Your task to perform on an android device: Clear all items from cart on bestbuy. Search for razer nari on bestbuy, select the first entry, add it to the cart, then select checkout. Image 0: 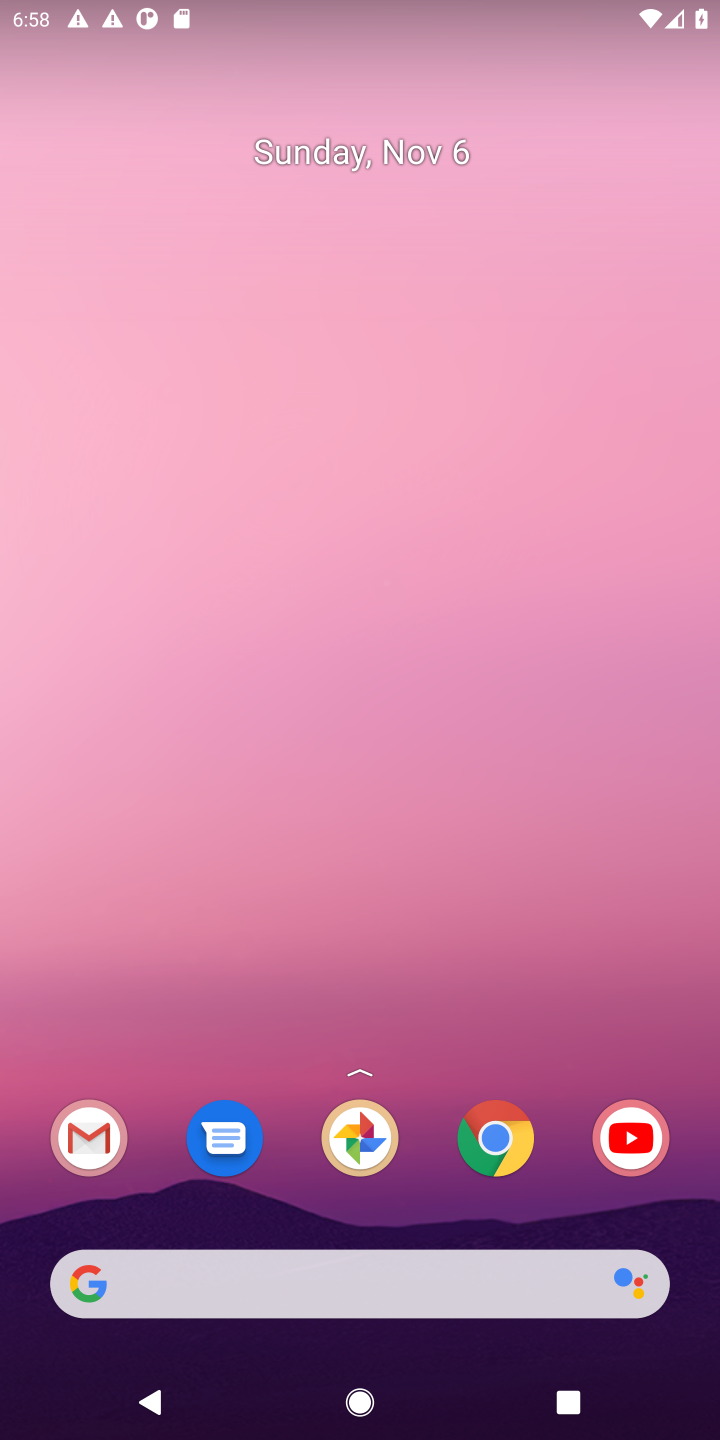
Step 0: drag from (302, 1021) to (356, 251)
Your task to perform on an android device: Clear all items from cart on bestbuy. Search for razer nari on bestbuy, select the first entry, add it to the cart, then select checkout. Image 1: 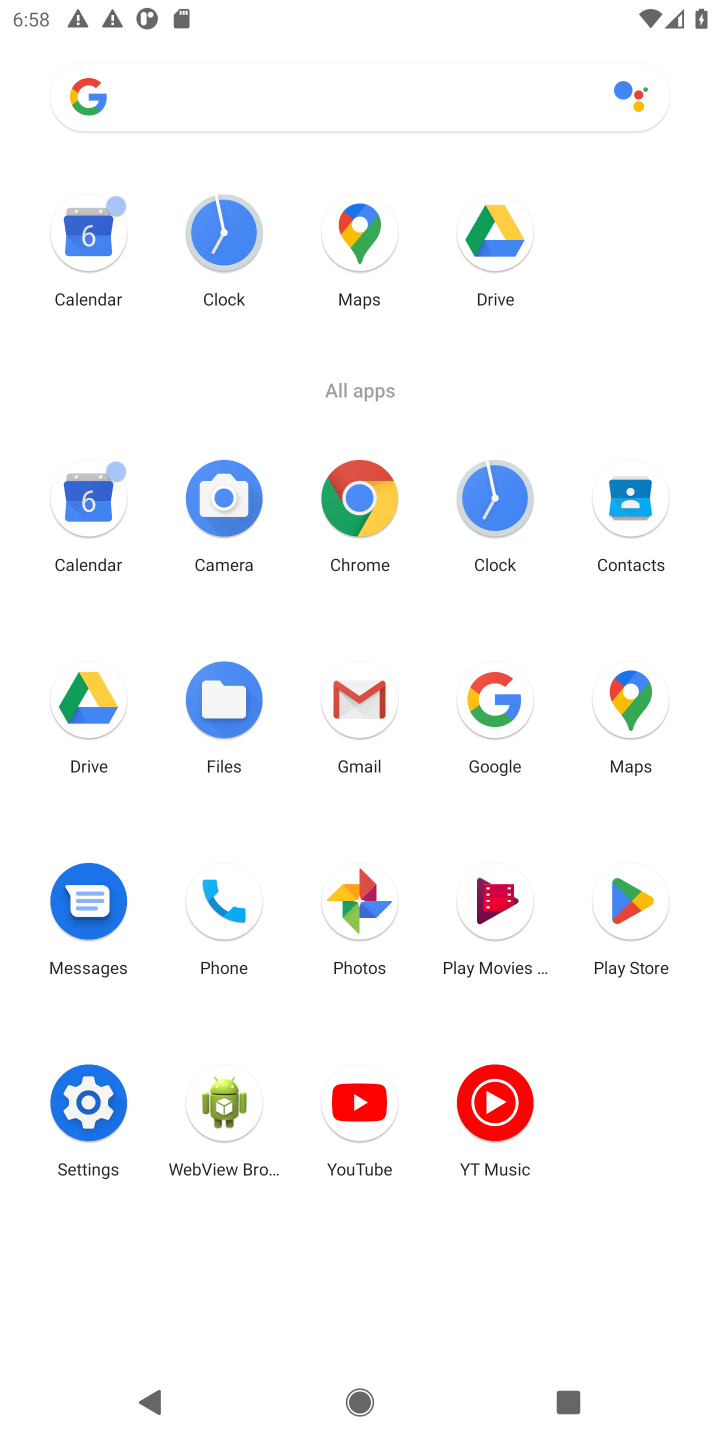
Step 1: click (494, 692)
Your task to perform on an android device: Clear all items from cart on bestbuy. Search for razer nari on bestbuy, select the first entry, add it to the cart, then select checkout. Image 2: 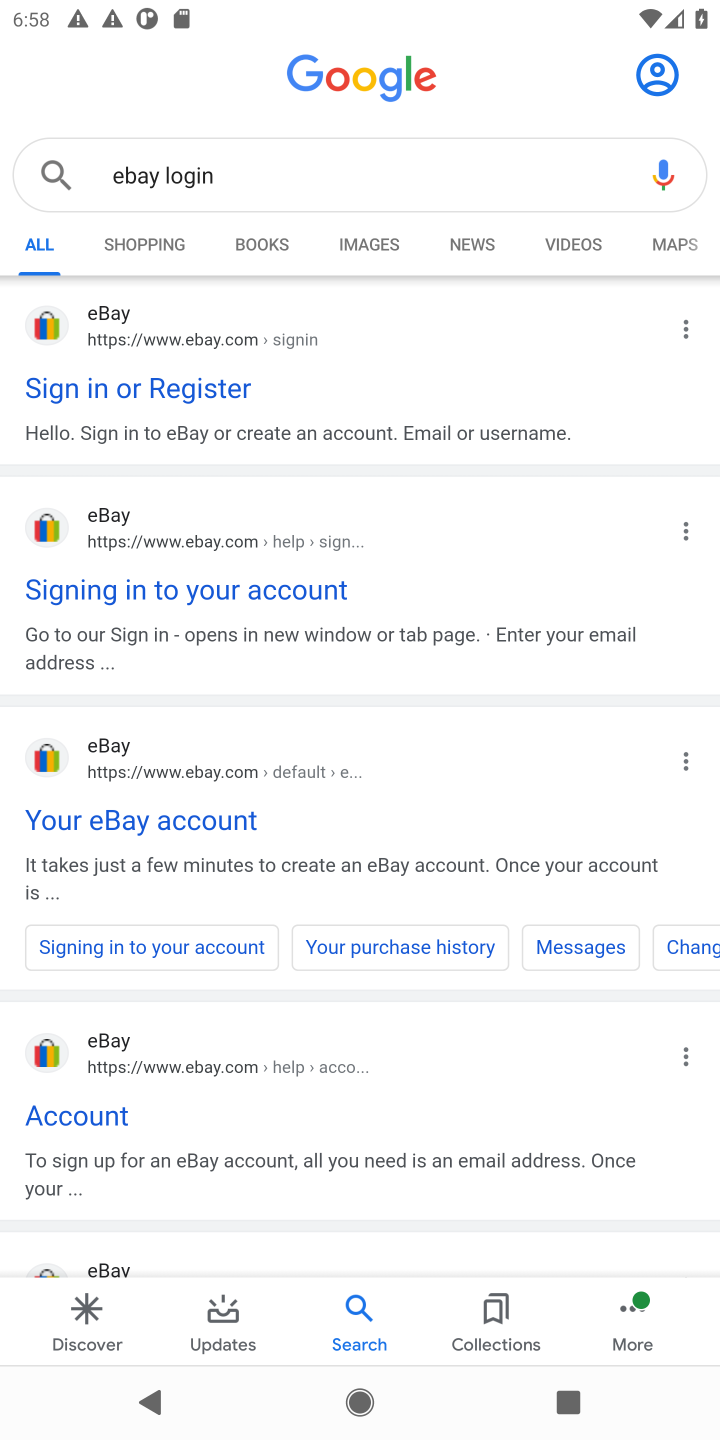
Step 2: click (323, 161)
Your task to perform on an android device: Clear all items from cart on bestbuy. Search for razer nari on bestbuy, select the first entry, add it to the cart, then select checkout. Image 3: 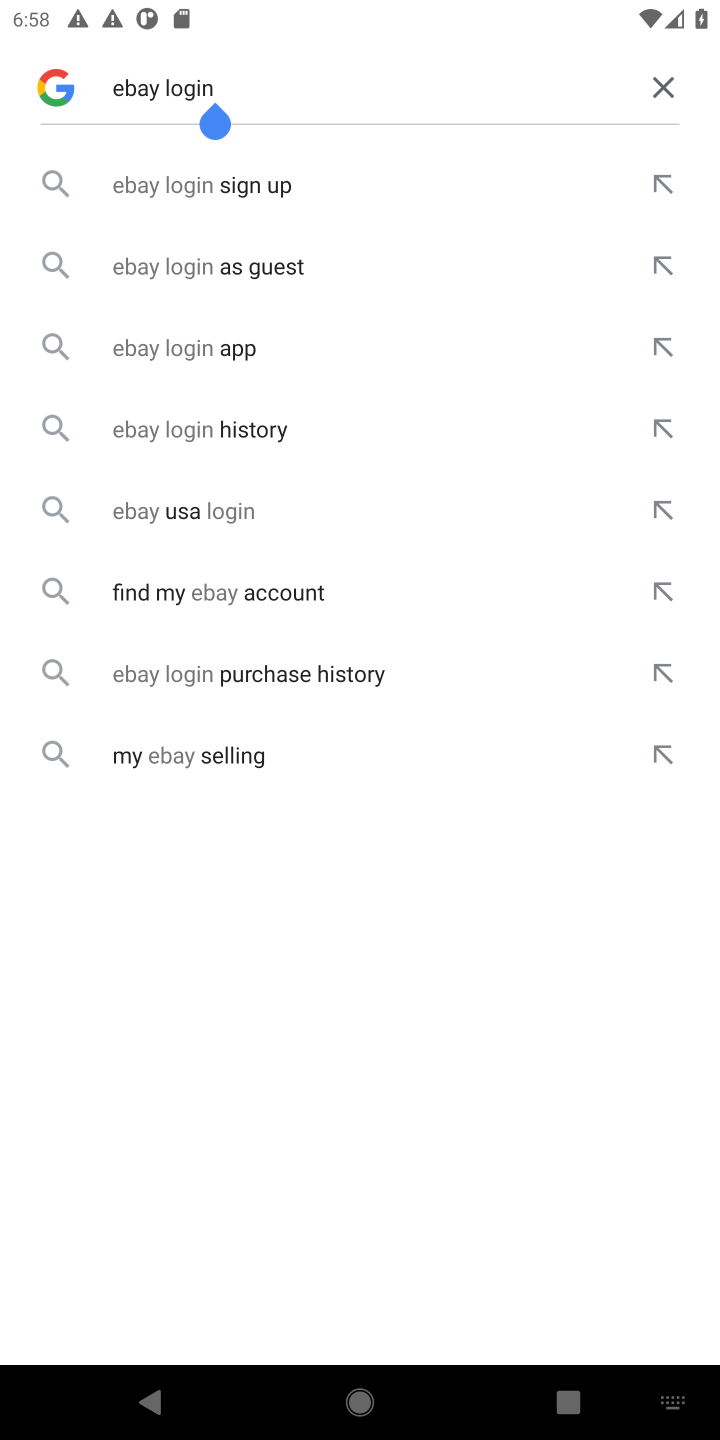
Step 3: click (664, 85)
Your task to perform on an android device: Clear all items from cart on bestbuy. Search for razer nari on bestbuy, select the first entry, add it to the cart, then select checkout. Image 4: 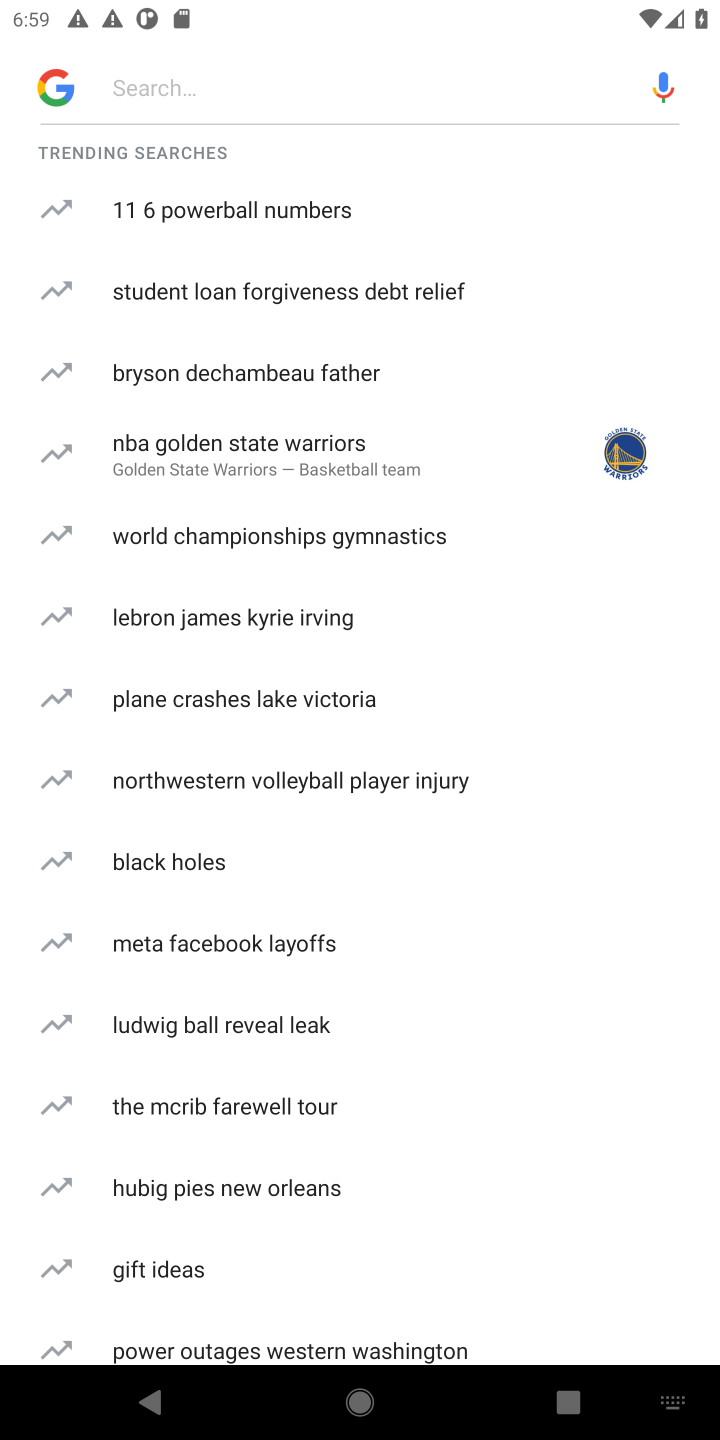
Step 4: click (290, 79)
Your task to perform on an android device: Clear all items from cart on bestbuy. Search for razer nari on bestbuy, select the first entry, add it to the cart, then select checkout. Image 5: 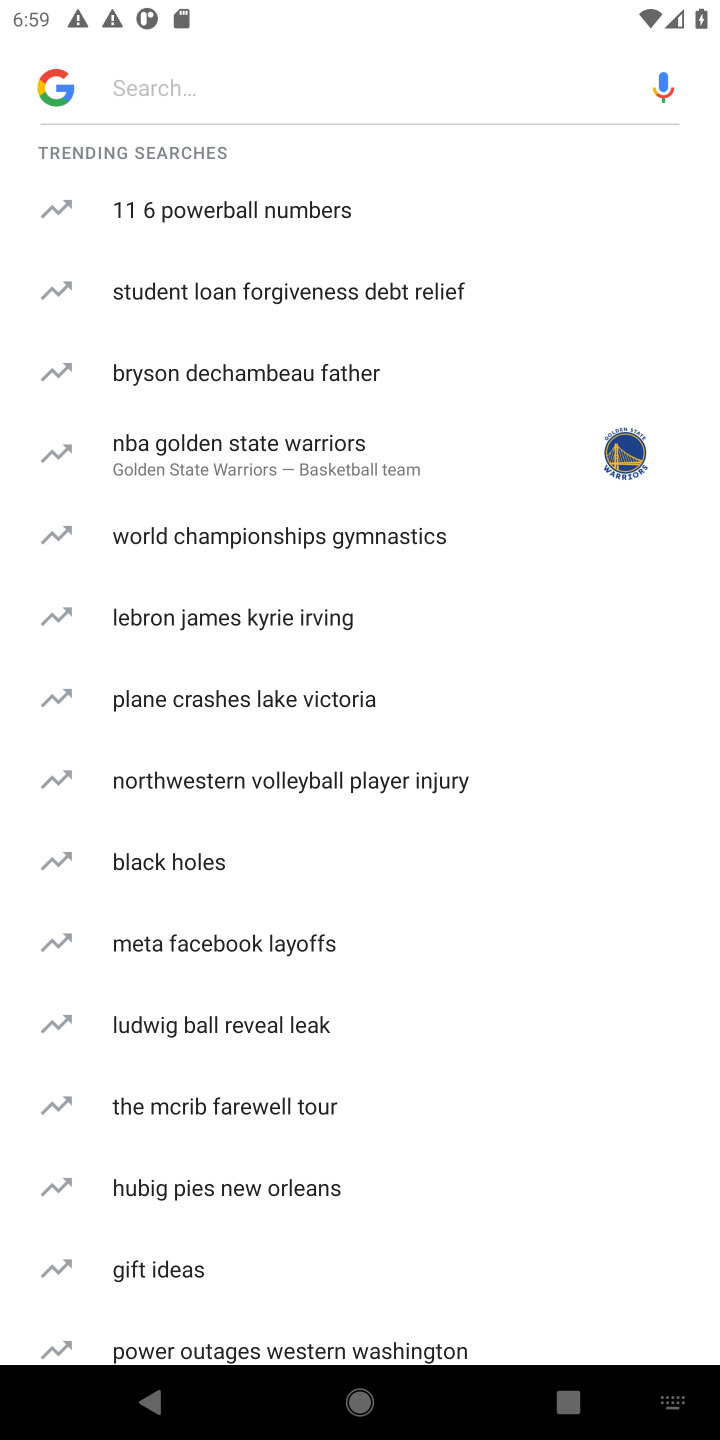
Step 5: type "bestbuy "
Your task to perform on an android device: Clear all items from cart on bestbuy. Search for razer nari on bestbuy, select the first entry, add it to the cart, then select checkout. Image 6: 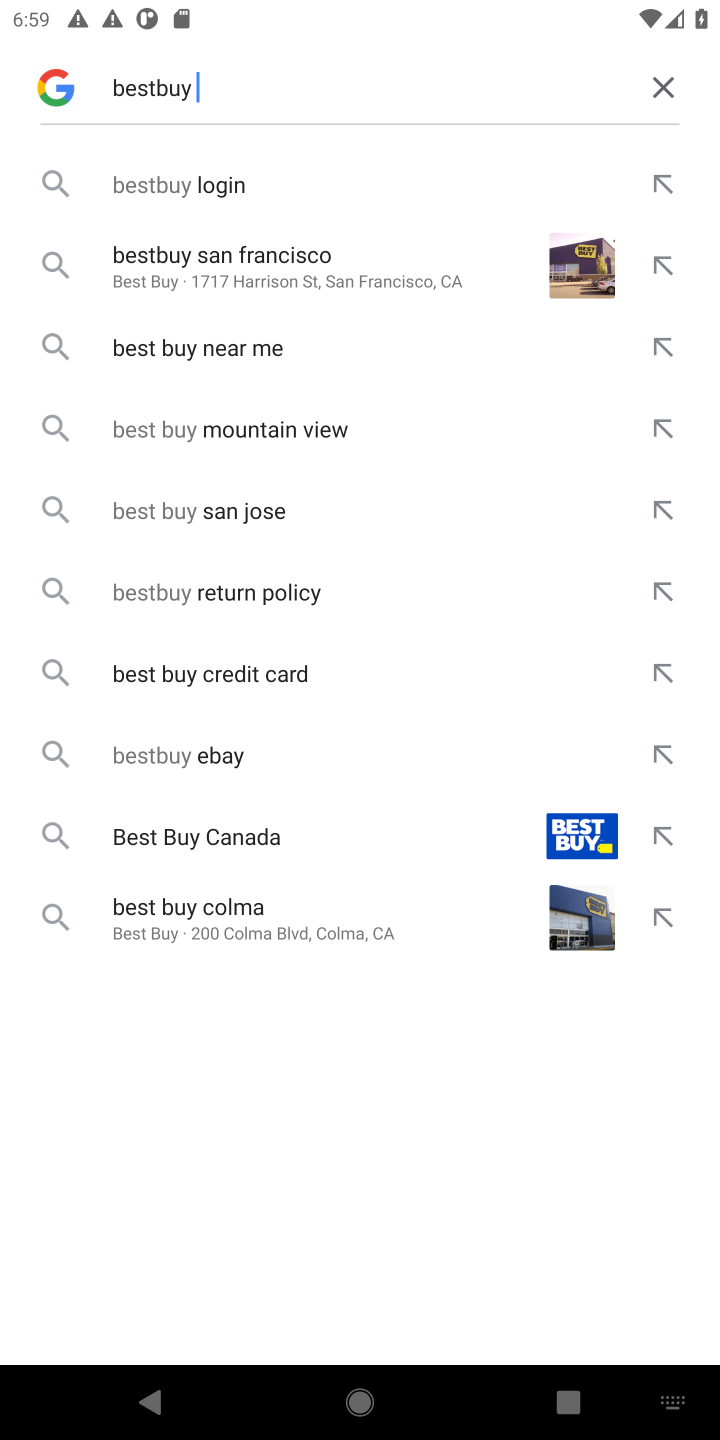
Step 6: click (181, 178)
Your task to perform on an android device: Clear all items from cart on bestbuy. Search for razer nari on bestbuy, select the first entry, add it to the cart, then select checkout. Image 7: 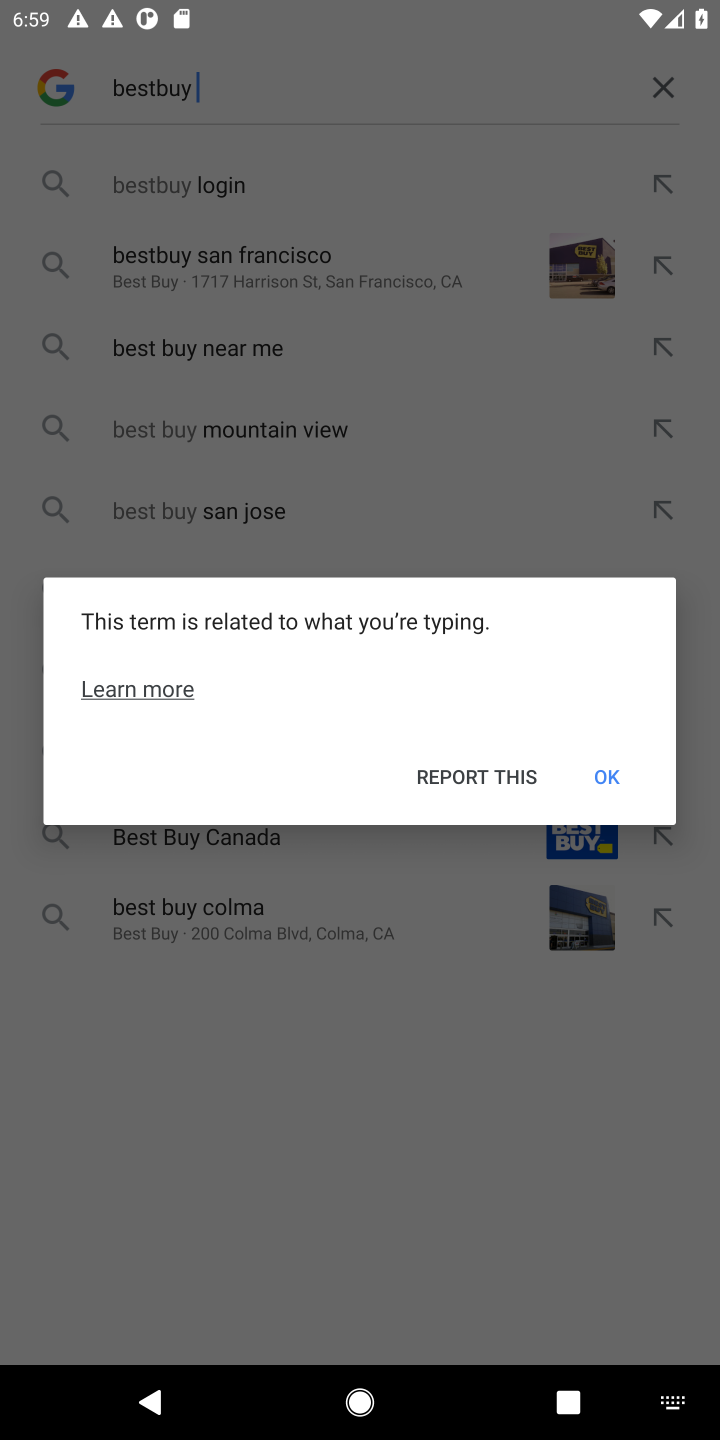
Step 7: click (582, 759)
Your task to perform on an android device: Clear all items from cart on bestbuy. Search for razer nari on bestbuy, select the first entry, add it to the cart, then select checkout. Image 8: 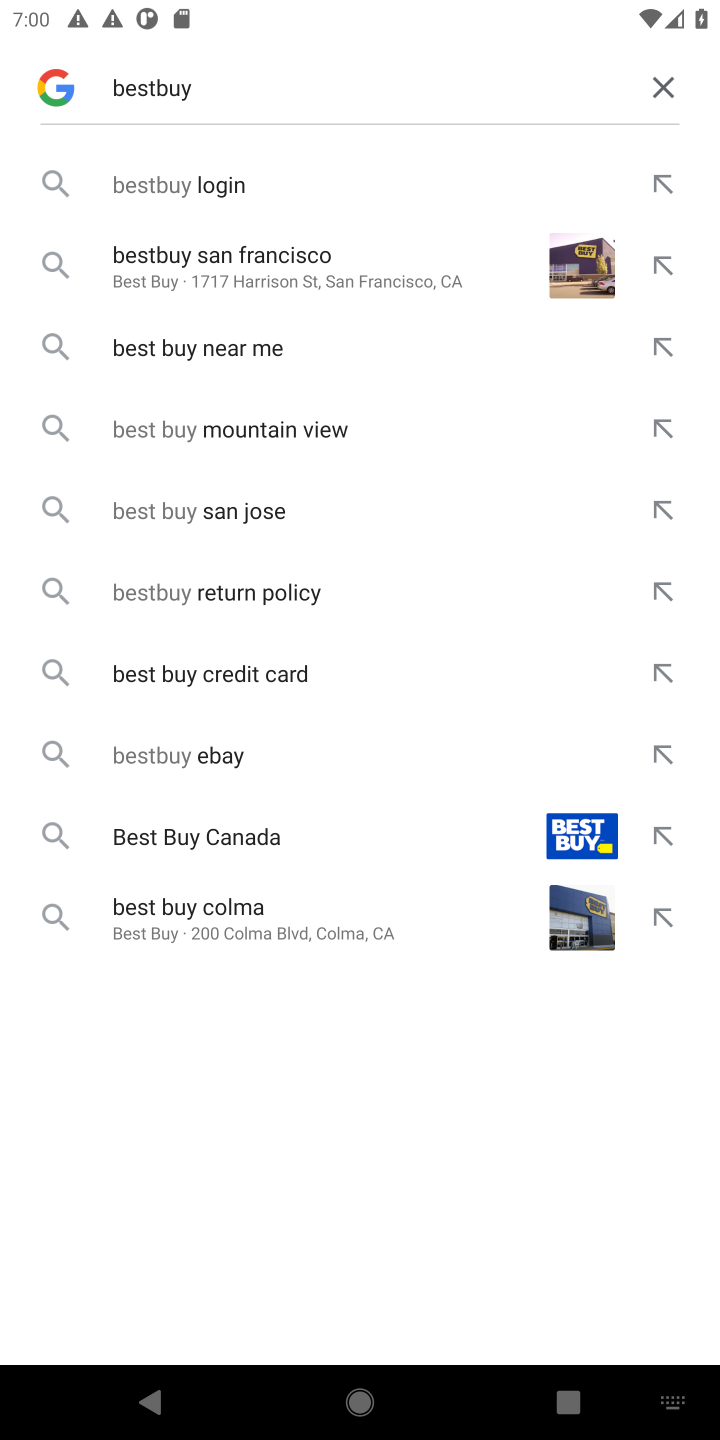
Step 8: click (254, 270)
Your task to perform on an android device: Clear all items from cart on bestbuy. Search for razer nari on bestbuy, select the first entry, add it to the cart, then select checkout. Image 9: 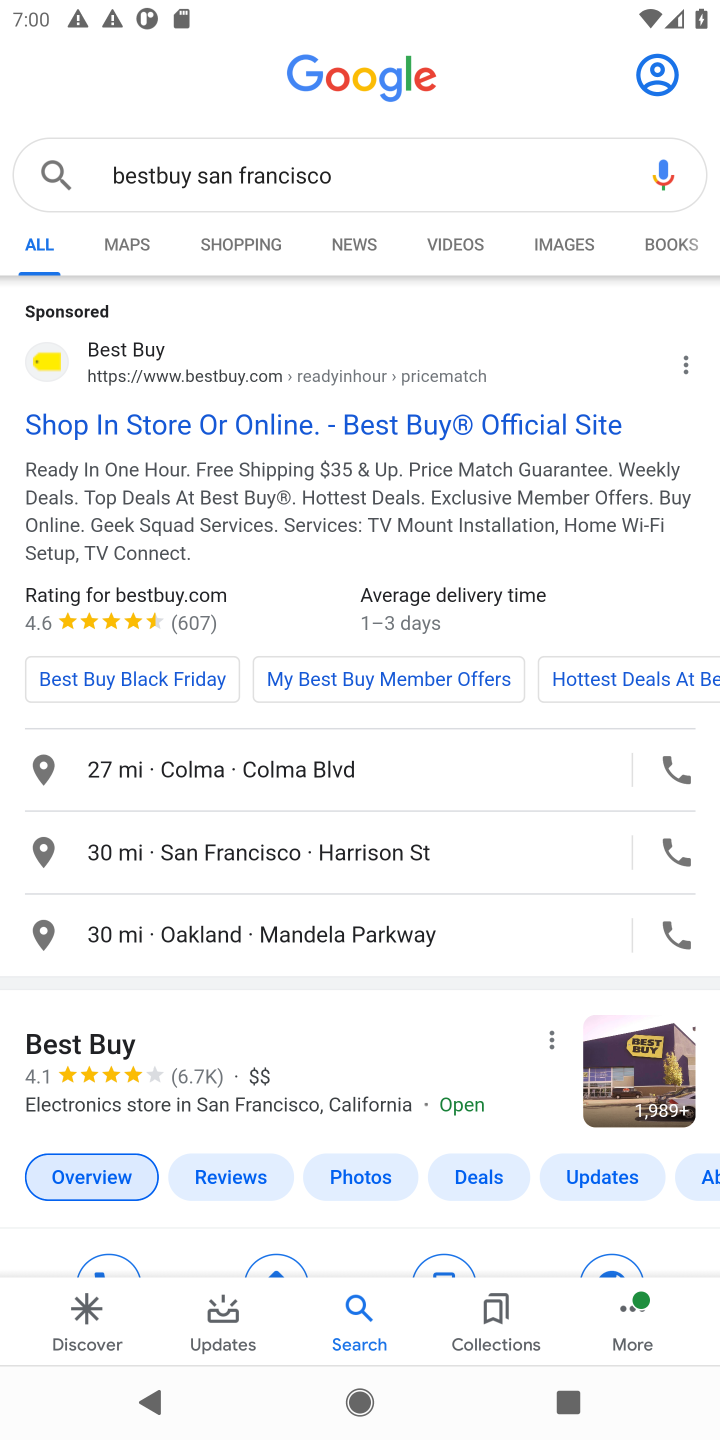
Step 9: click (28, 339)
Your task to perform on an android device: Clear all items from cart on bestbuy. Search for razer nari on bestbuy, select the first entry, add it to the cart, then select checkout. Image 10: 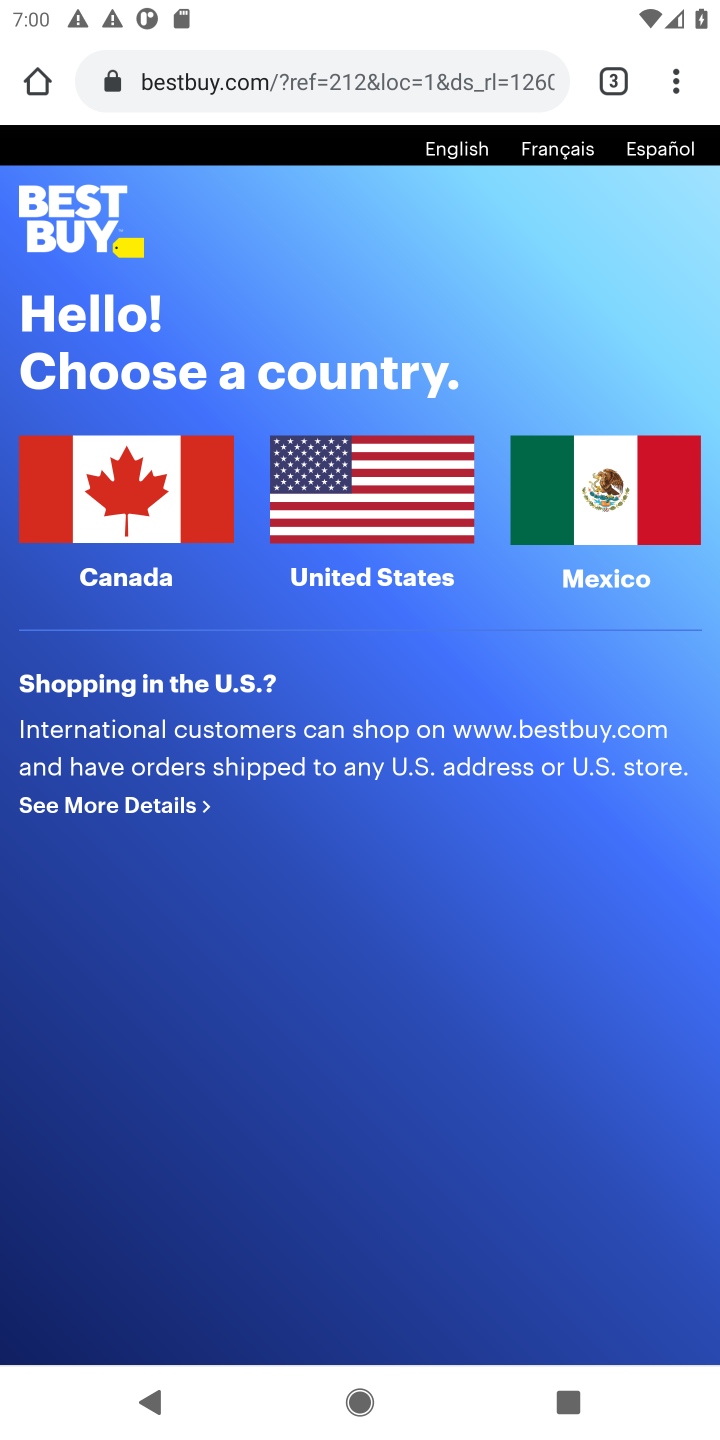
Step 10: click (341, 502)
Your task to perform on an android device: Clear all items from cart on bestbuy. Search for razer nari on bestbuy, select the first entry, add it to the cart, then select checkout. Image 11: 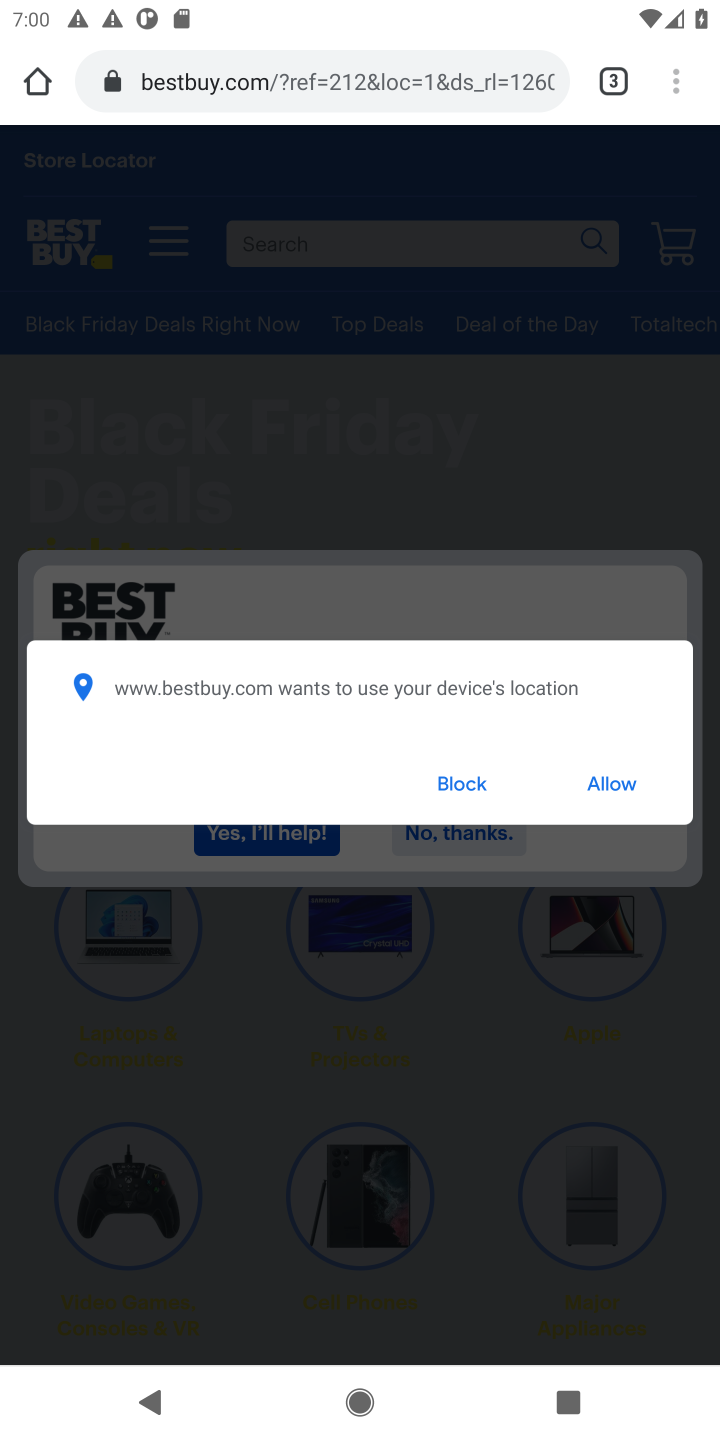
Step 11: click (604, 782)
Your task to perform on an android device: Clear all items from cart on bestbuy. Search for razer nari on bestbuy, select the first entry, add it to the cart, then select checkout. Image 12: 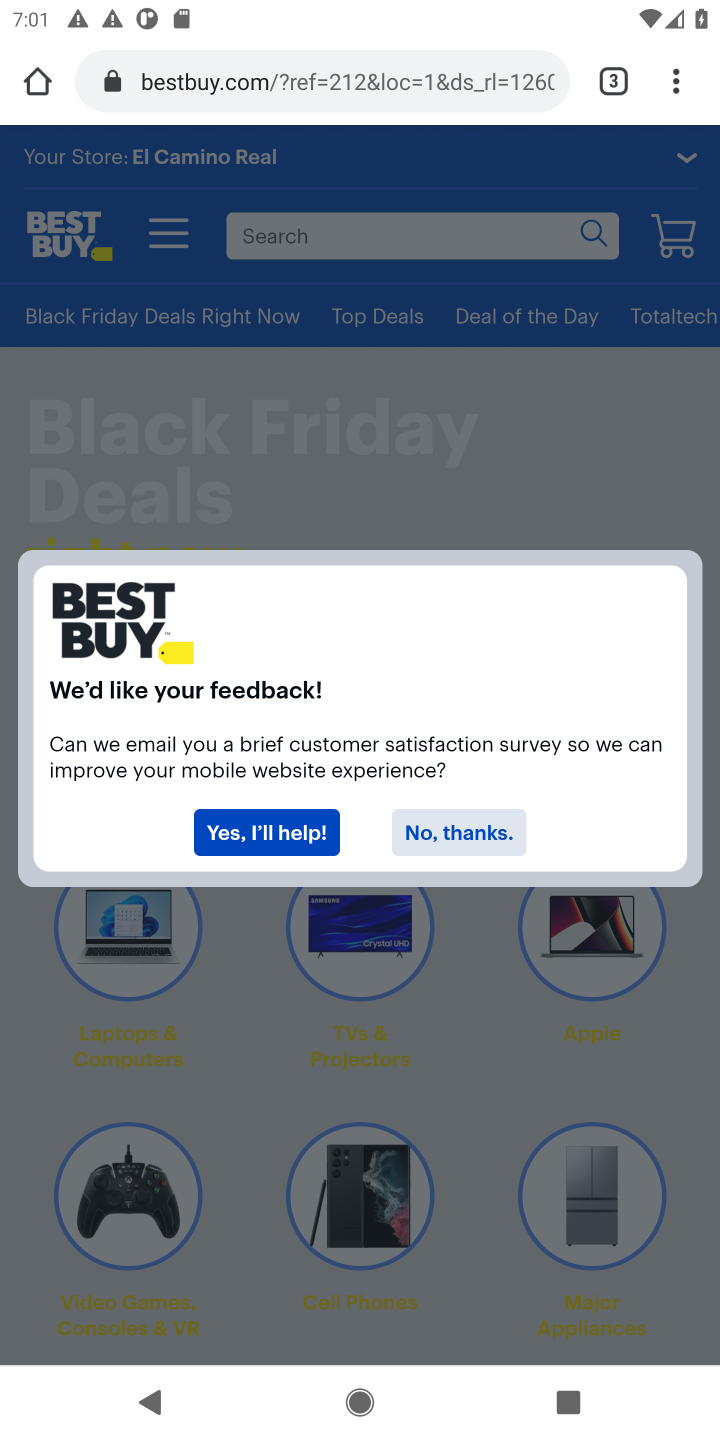
Step 12: click (489, 817)
Your task to perform on an android device: Clear all items from cart on bestbuy. Search for razer nari on bestbuy, select the first entry, add it to the cart, then select checkout. Image 13: 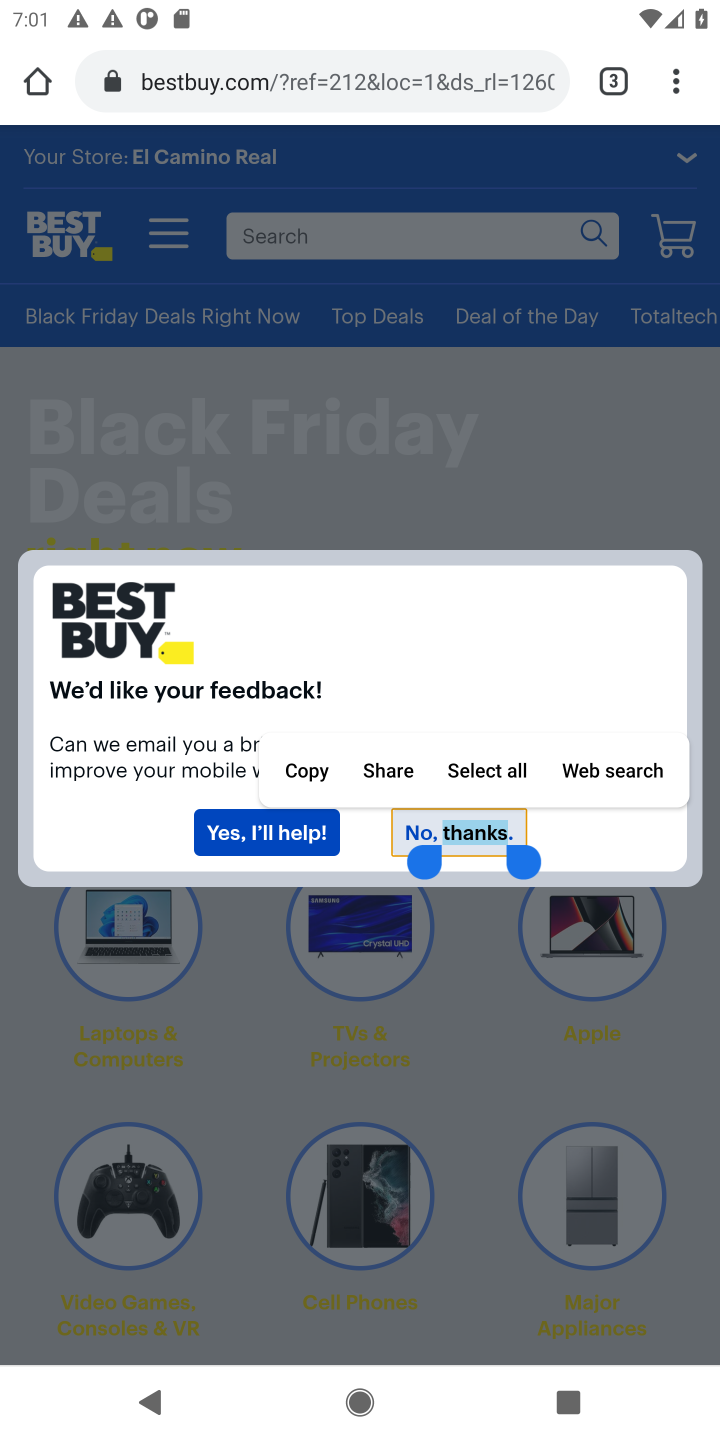
Step 13: click (463, 842)
Your task to perform on an android device: Clear all items from cart on bestbuy. Search for razer nari on bestbuy, select the first entry, add it to the cart, then select checkout. Image 14: 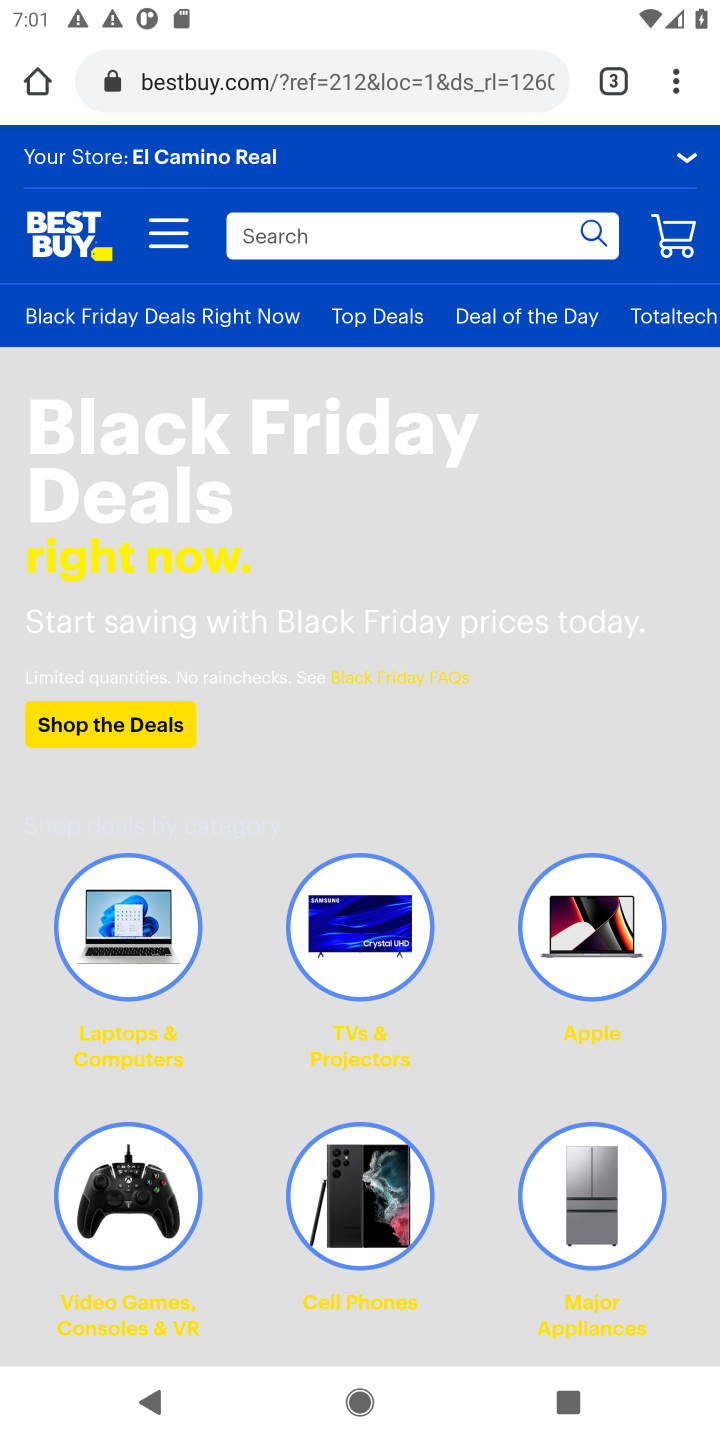
Step 14: click (475, 226)
Your task to perform on an android device: Clear all items from cart on bestbuy. Search for razer nari on bestbuy, select the first entry, add it to the cart, then select checkout. Image 15: 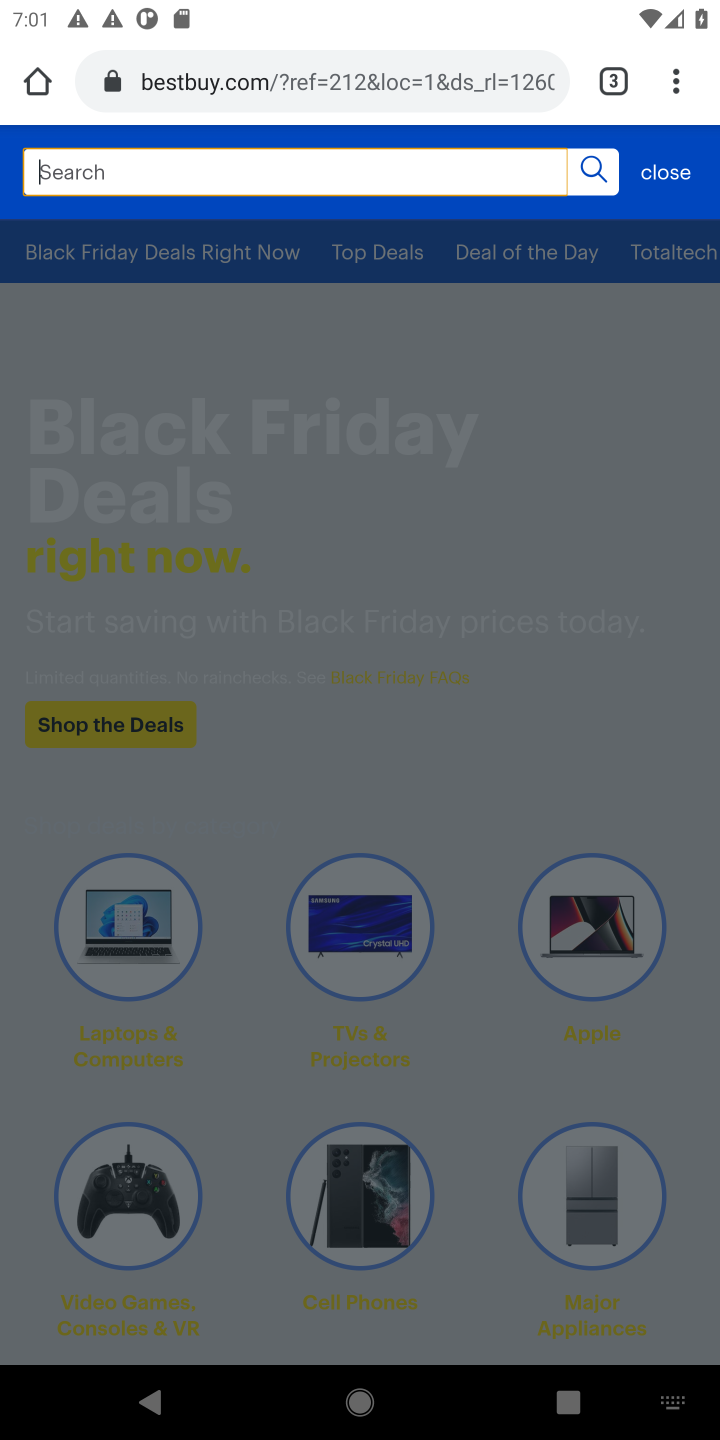
Step 15: type "azer nari  "
Your task to perform on an android device: Clear all items from cart on bestbuy. Search for razer nari on bestbuy, select the first entry, add it to the cart, then select checkout. Image 16: 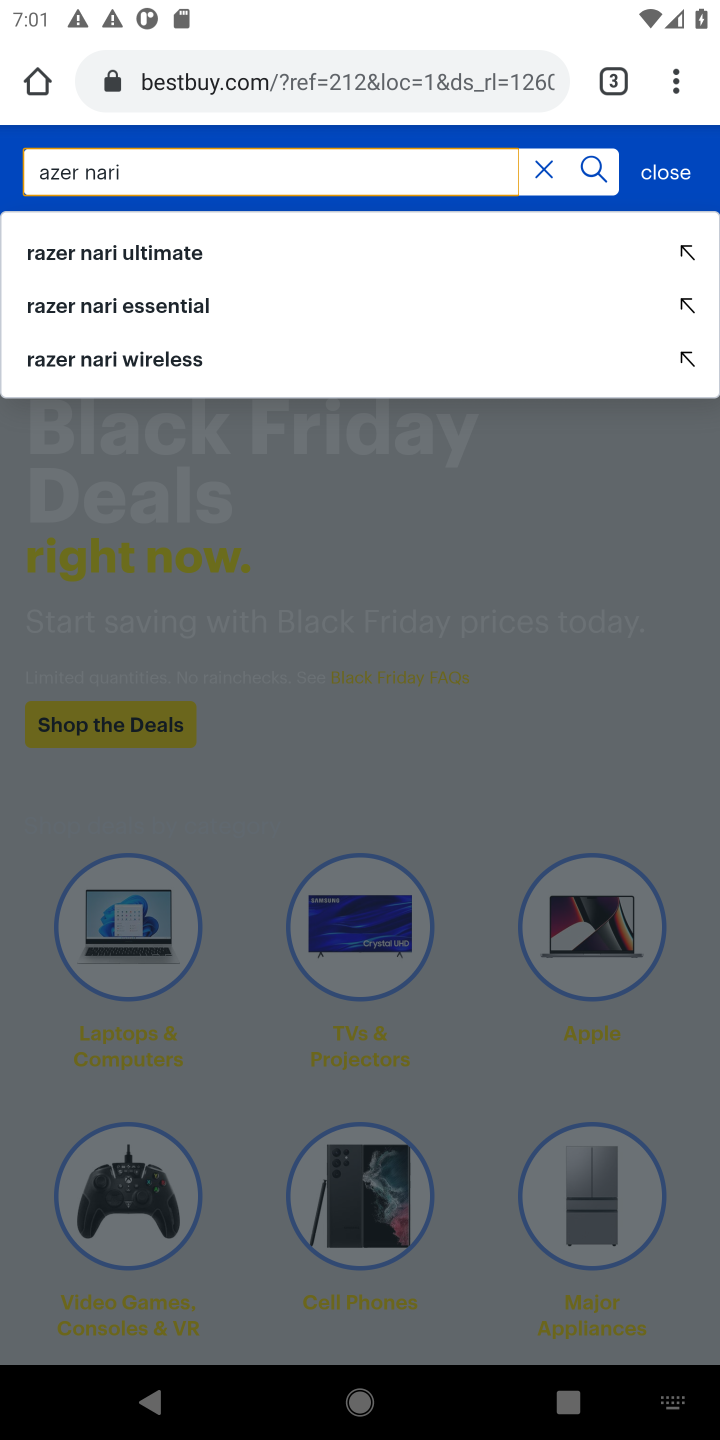
Step 16: click (139, 253)
Your task to perform on an android device: Clear all items from cart on bestbuy. Search for razer nari on bestbuy, select the first entry, add it to the cart, then select checkout. Image 17: 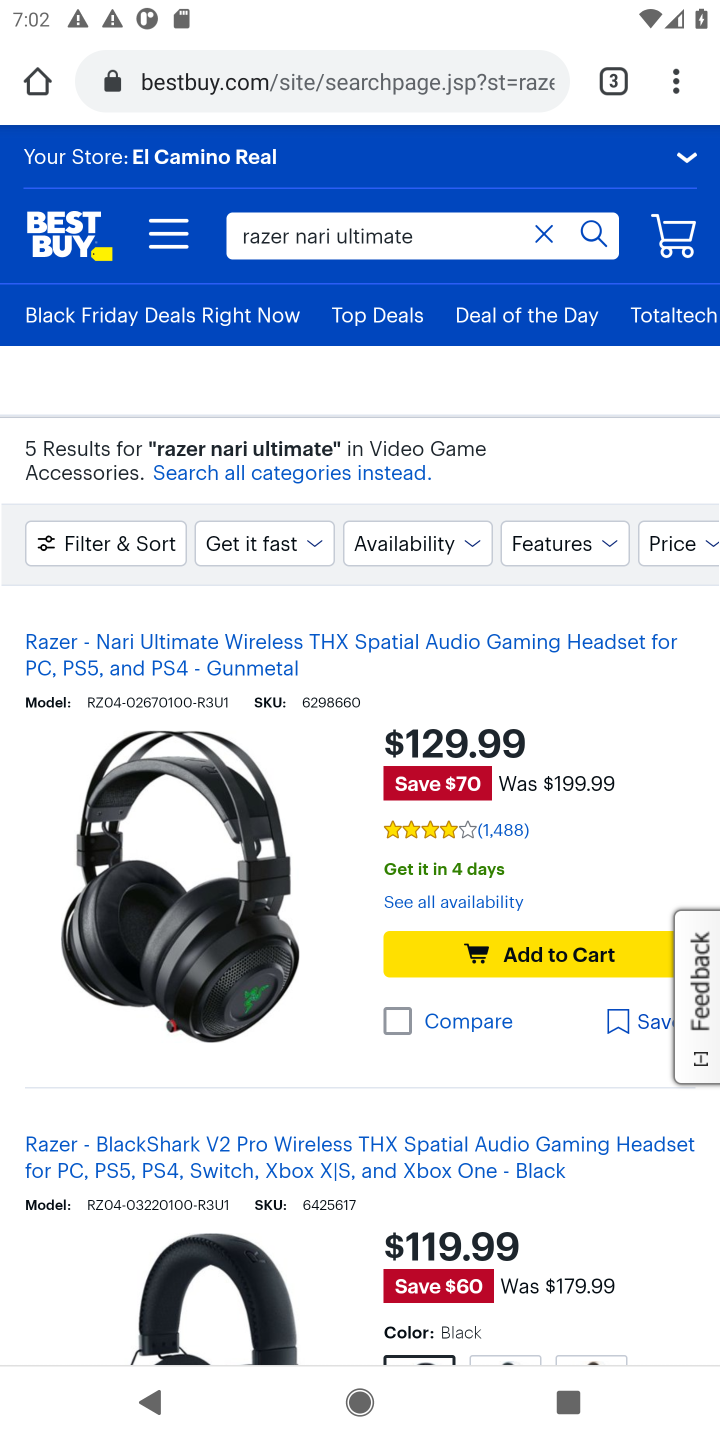
Step 17: click (522, 950)
Your task to perform on an android device: Clear all items from cart on bestbuy. Search for razer nari on bestbuy, select the first entry, add it to the cart, then select checkout. Image 18: 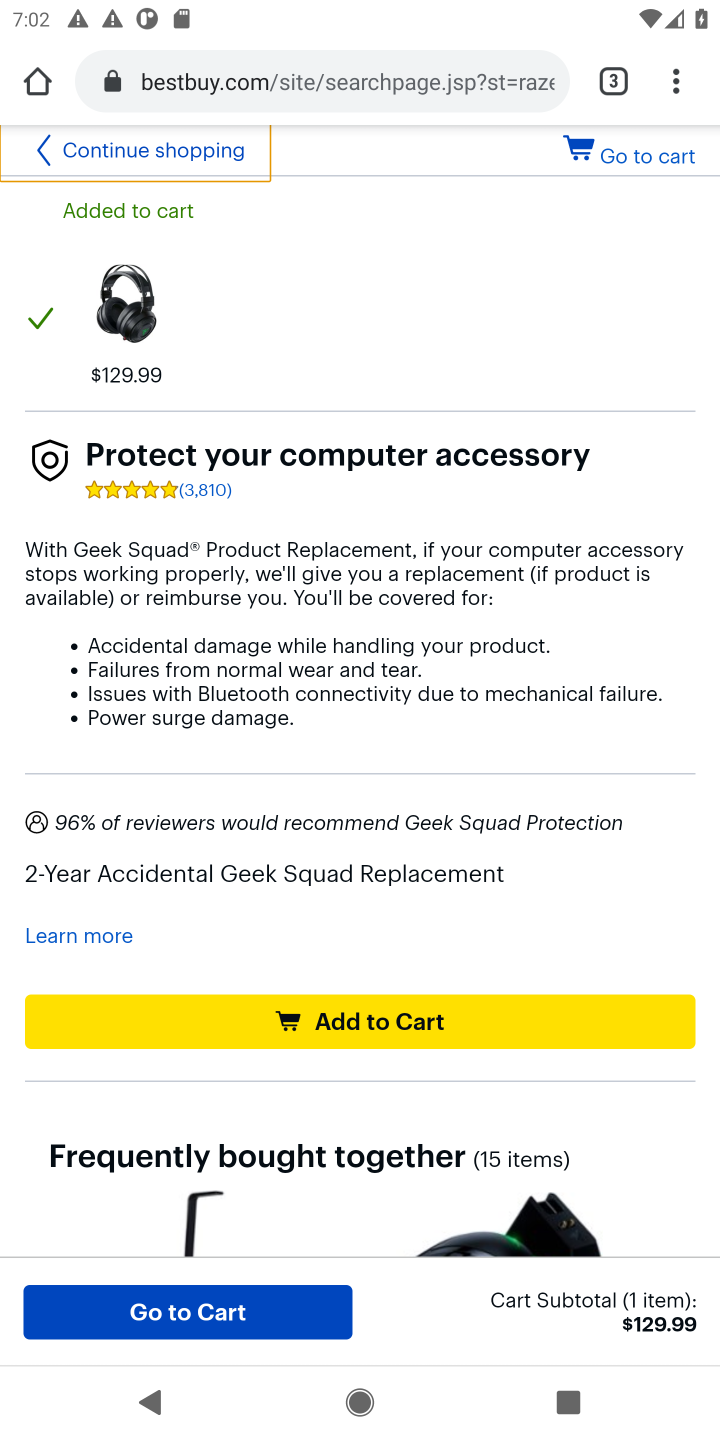
Step 18: task complete